Your task to perform on an android device: Go to internet settings Image 0: 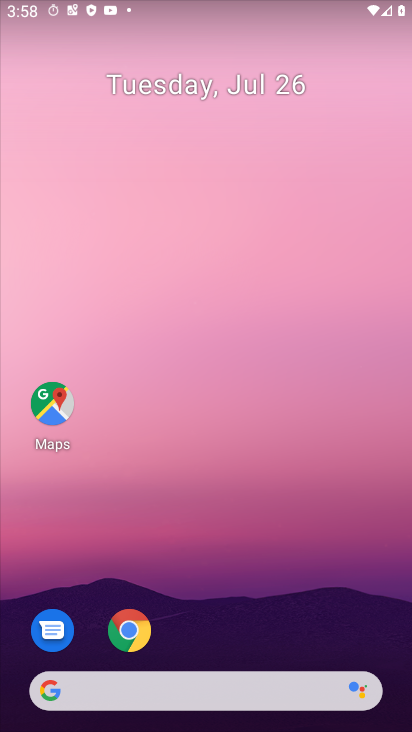
Step 0: drag from (272, 614) to (219, 23)
Your task to perform on an android device: Go to internet settings Image 1: 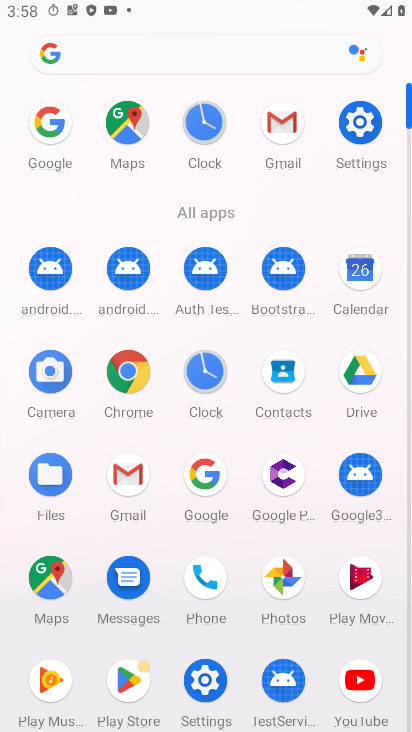
Step 1: click (360, 124)
Your task to perform on an android device: Go to internet settings Image 2: 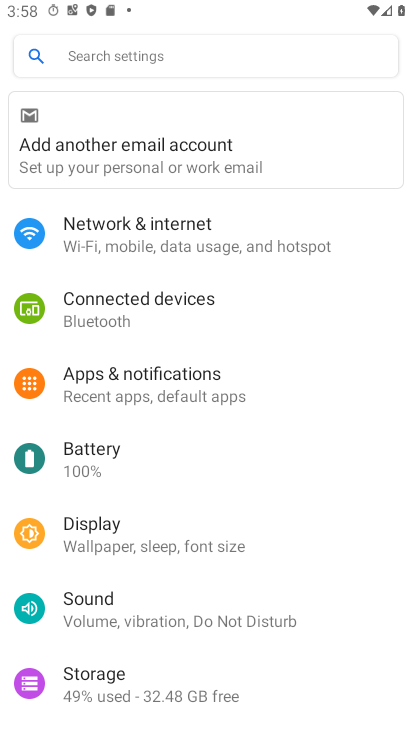
Step 2: click (258, 225)
Your task to perform on an android device: Go to internet settings Image 3: 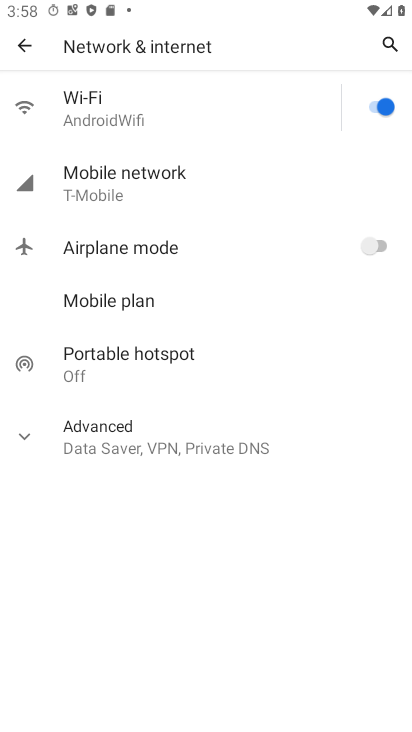
Step 3: task complete